Your task to perform on an android device: See recent photos Image 0: 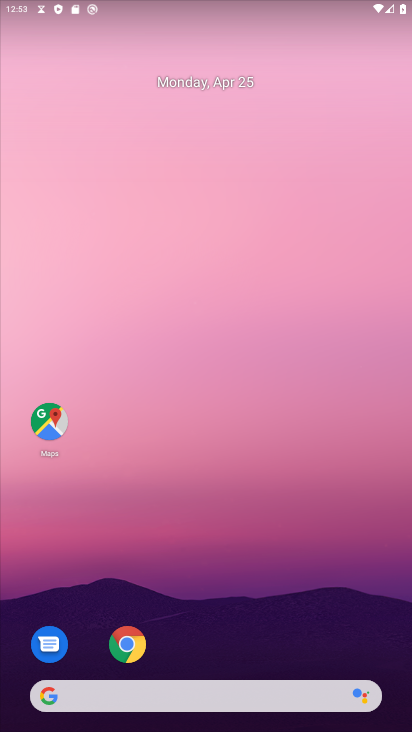
Step 0: drag from (337, 660) to (376, 44)
Your task to perform on an android device: See recent photos Image 1: 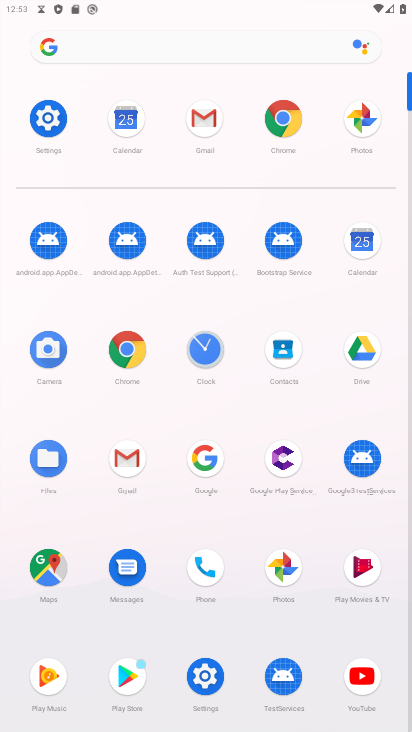
Step 1: click (365, 123)
Your task to perform on an android device: See recent photos Image 2: 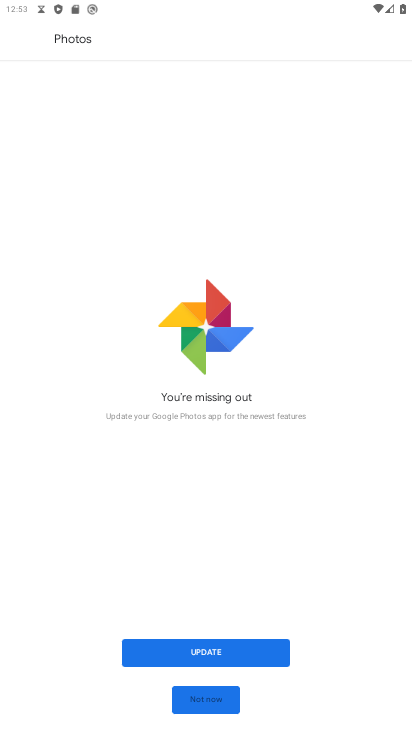
Step 2: click (214, 654)
Your task to perform on an android device: See recent photos Image 3: 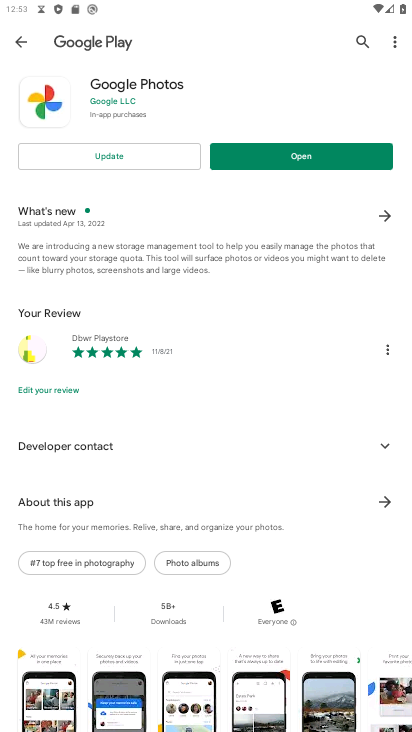
Step 3: click (152, 158)
Your task to perform on an android device: See recent photos Image 4: 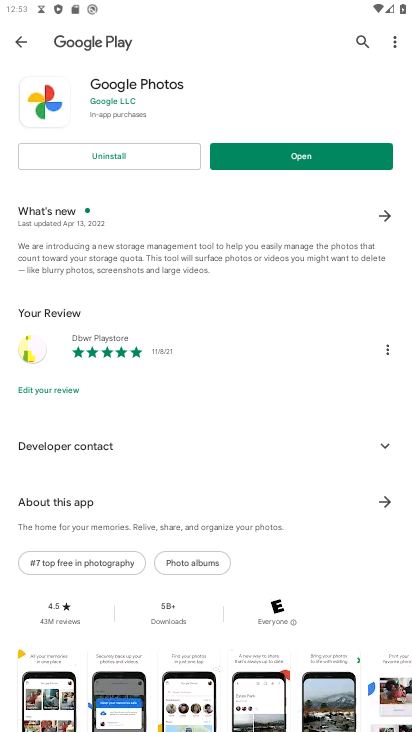
Step 4: click (289, 166)
Your task to perform on an android device: See recent photos Image 5: 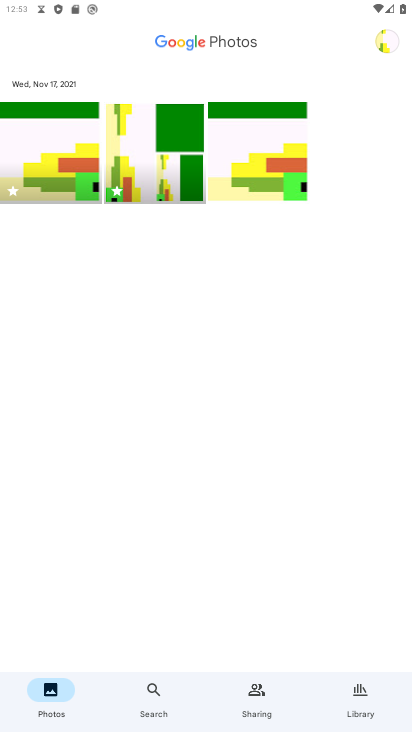
Step 5: click (356, 700)
Your task to perform on an android device: See recent photos Image 6: 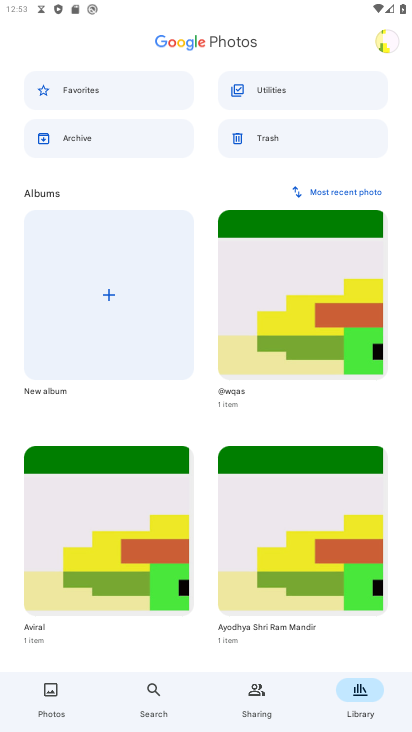
Step 6: click (356, 197)
Your task to perform on an android device: See recent photos Image 7: 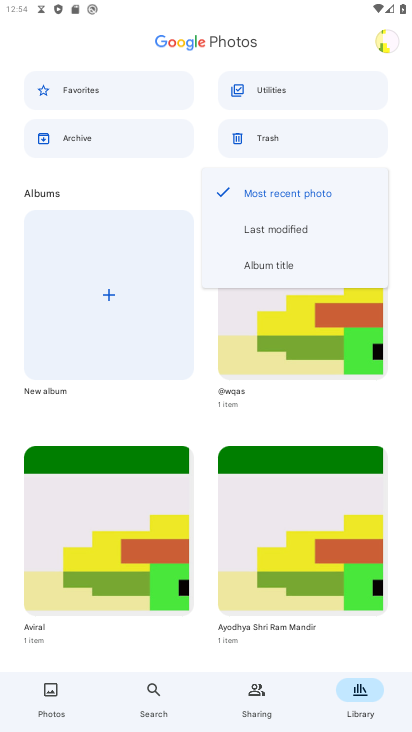
Step 7: click (264, 192)
Your task to perform on an android device: See recent photos Image 8: 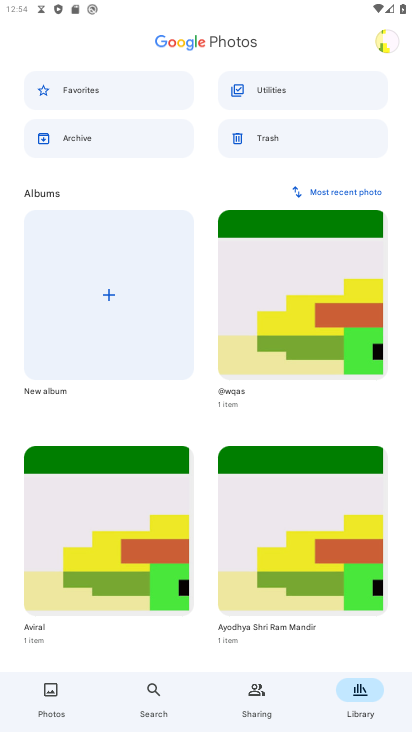
Step 8: task complete